Your task to perform on an android device: find photos in the google photos app Image 0: 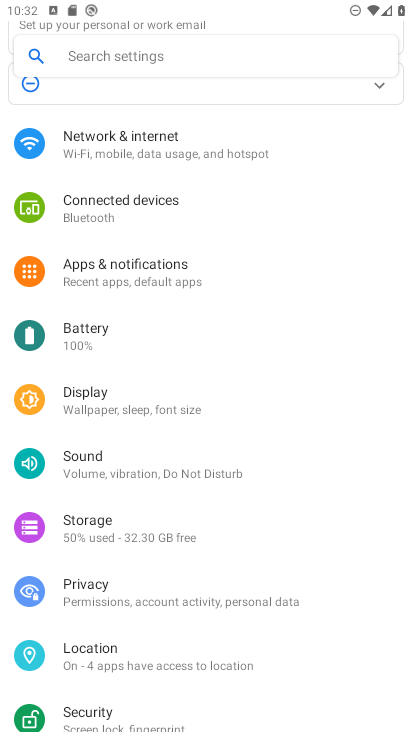
Step 0: press home button
Your task to perform on an android device: find photos in the google photos app Image 1: 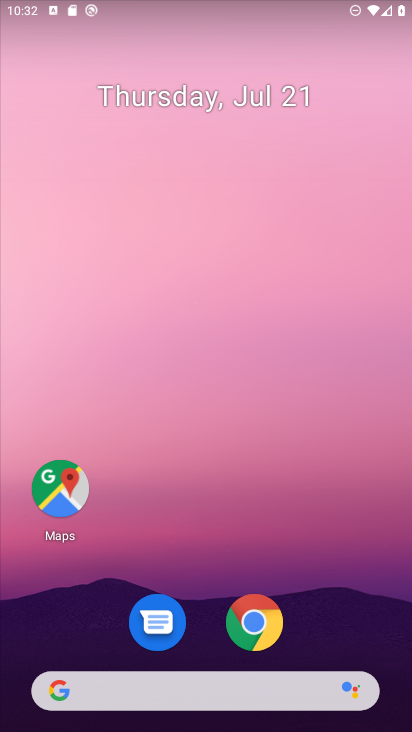
Step 1: drag from (147, 689) to (200, 40)
Your task to perform on an android device: find photos in the google photos app Image 2: 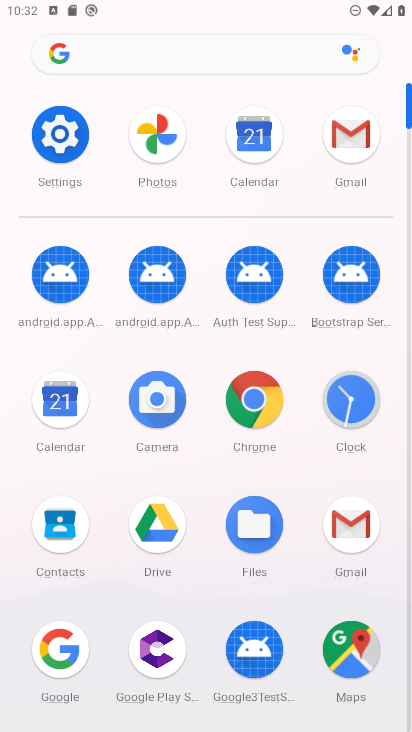
Step 2: click (165, 143)
Your task to perform on an android device: find photos in the google photos app Image 3: 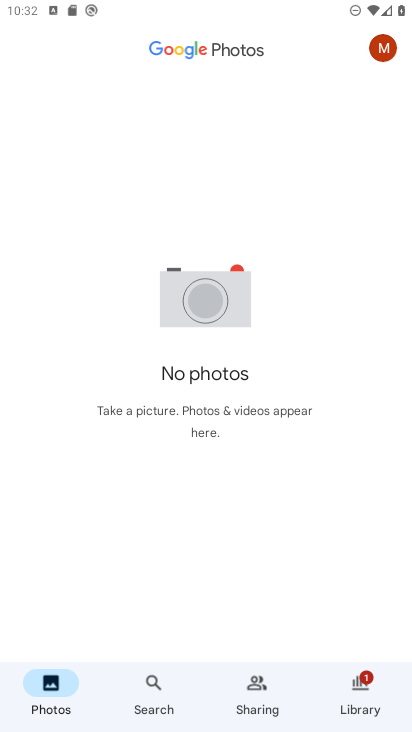
Step 3: click (152, 677)
Your task to perform on an android device: find photos in the google photos app Image 4: 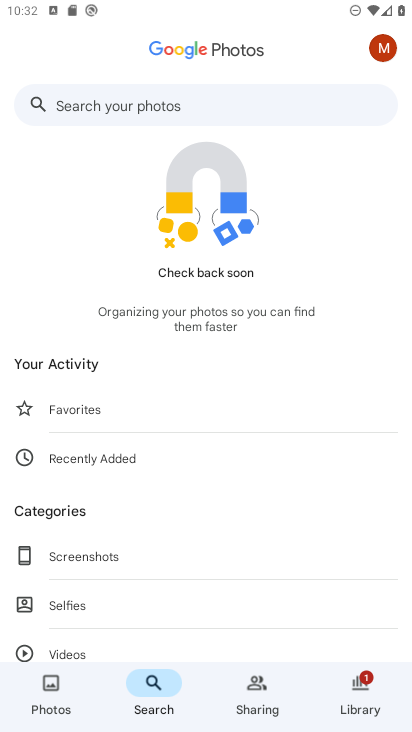
Step 4: task complete